Your task to perform on an android device: turn vacation reply on in the gmail app Image 0: 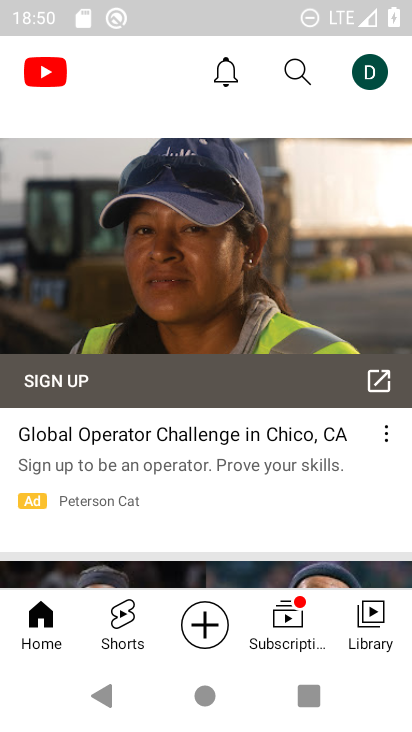
Step 0: press home button
Your task to perform on an android device: turn vacation reply on in the gmail app Image 1: 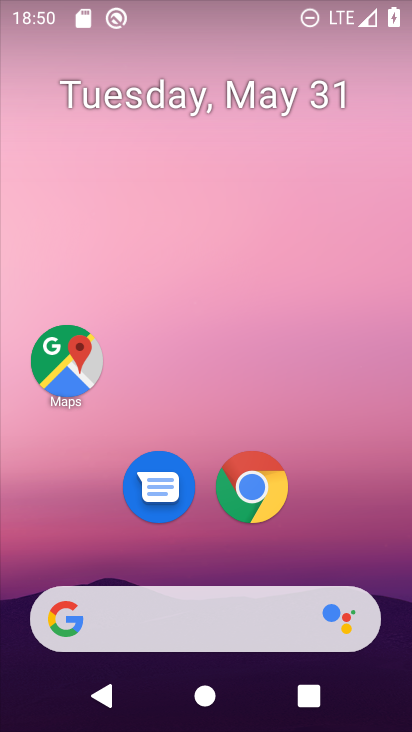
Step 1: drag from (333, 526) to (229, 140)
Your task to perform on an android device: turn vacation reply on in the gmail app Image 2: 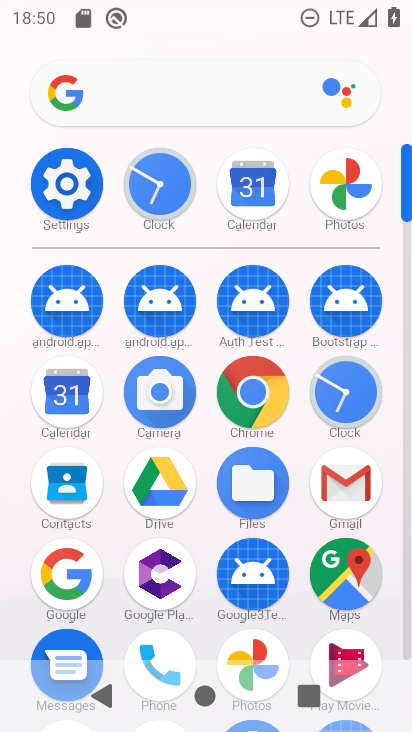
Step 2: click (338, 508)
Your task to perform on an android device: turn vacation reply on in the gmail app Image 3: 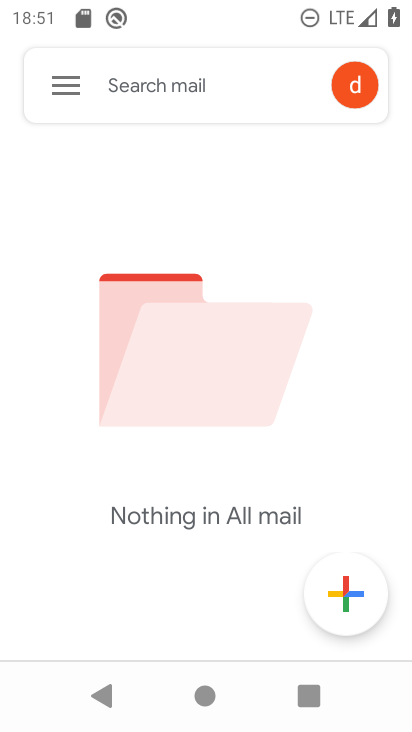
Step 3: click (66, 90)
Your task to perform on an android device: turn vacation reply on in the gmail app Image 4: 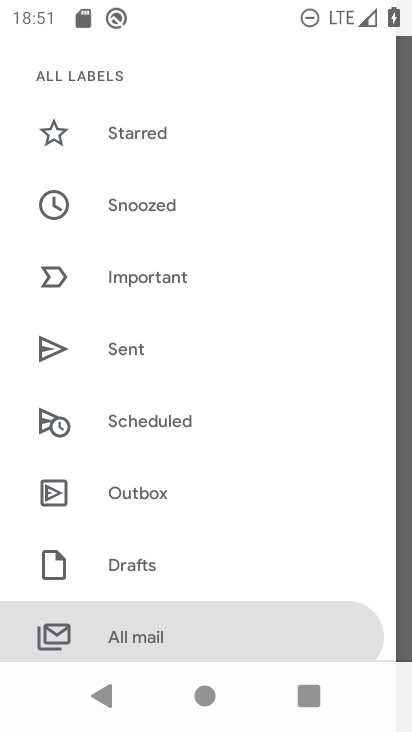
Step 4: drag from (193, 489) to (156, 70)
Your task to perform on an android device: turn vacation reply on in the gmail app Image 5: 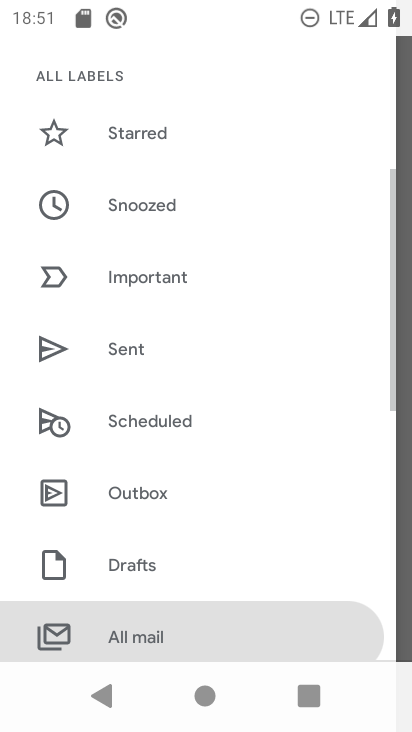
Step 5: drag from (188, 545) to (178, 257)
Your task to perform on an android device: turn vacation reply on in the gmail app Image 6: 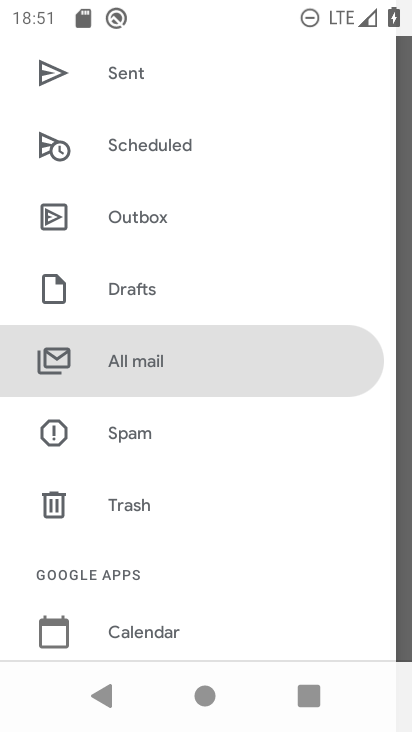
Step 6: drag from (219, 579) to (210, 248)
Your task to perform on an android device: turn vacation reply on in the gmail app Image 7: 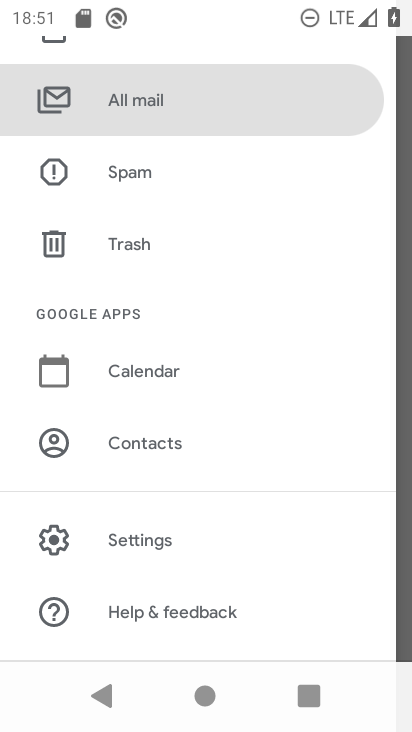
Step 7: click (127, 541)
Your task to perform on an android device: turn vacation reply on in the gmail app Image 8: 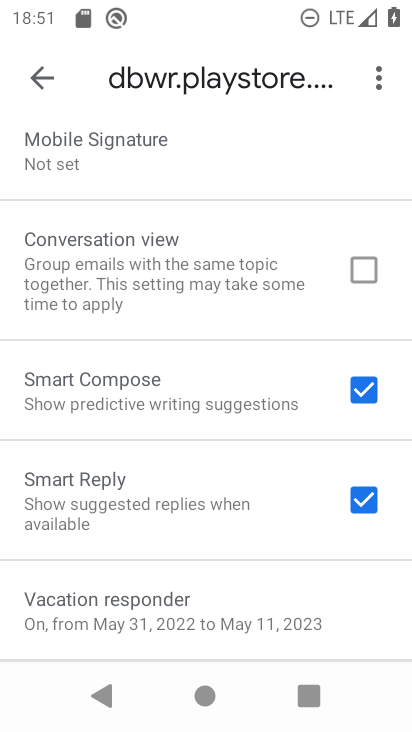
Step 8: drag from (209, 577) to (182, 316)
Your task to perform on an android device: turn vacation reply on in the gmail app Image 9: 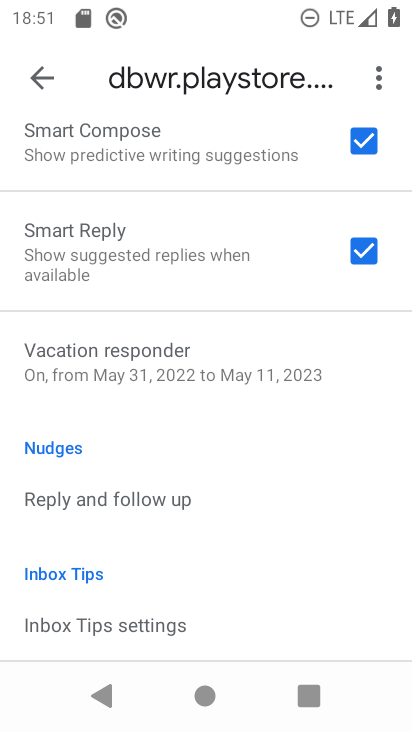
Step 9: click (140, 358)
Your task to perform on an android device: turn vacation reply on in the gmail app Image 10: 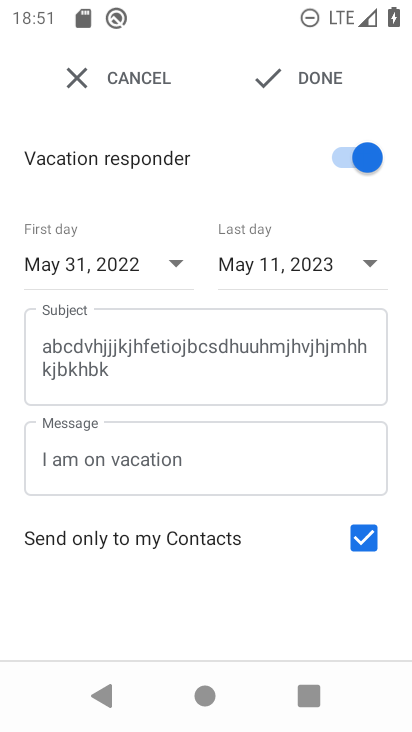
Step 10: task complete